Your task to perform on an android device: Go to battery settings Image 0: 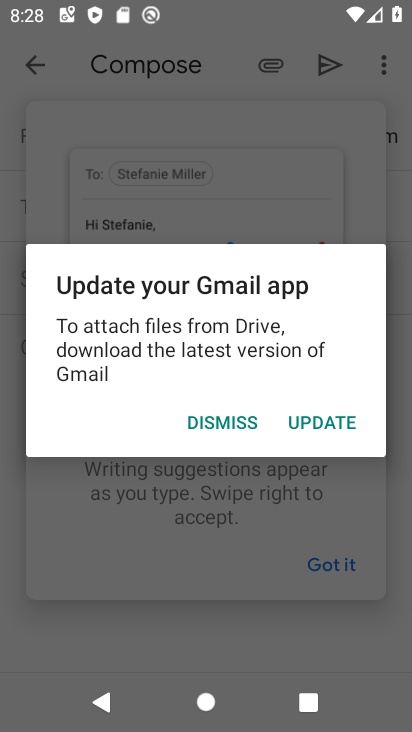
Step 0: press home button
Your task to perform on an android device: Go to battery settings Image 1: 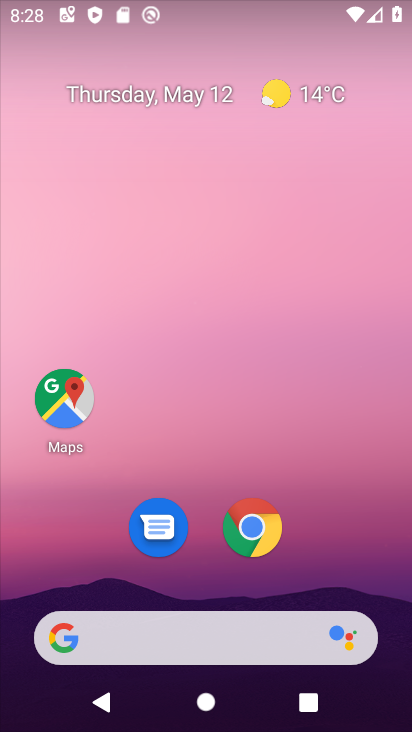
Step 1: drag from (324, 578) to (301, 228)
Your task to perform on an android device: Go to battery settings Image 2: 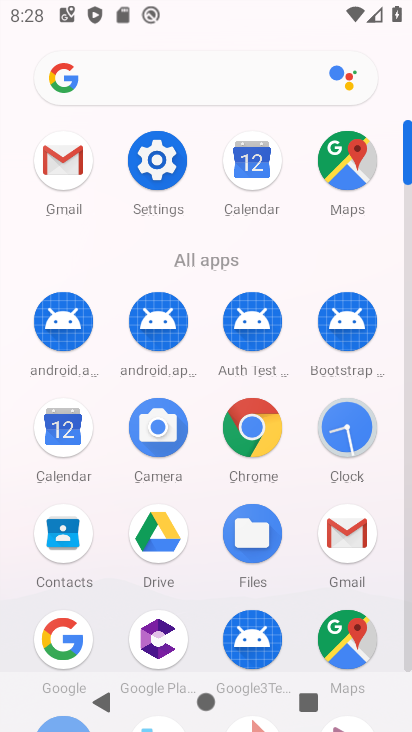
Step 2: click (164, 180)
Your task to perform on an android device: Go to battery settings Image 3: 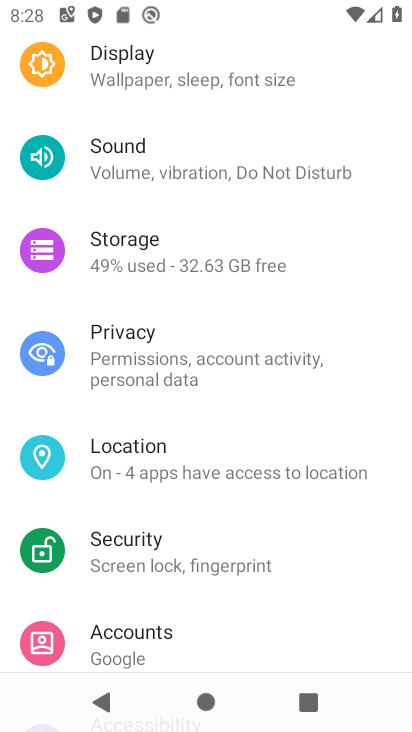
Step 3: drag from (227, 512) to (212, 196)
Your task to perform on an android device: Go to battery settings Image 4: 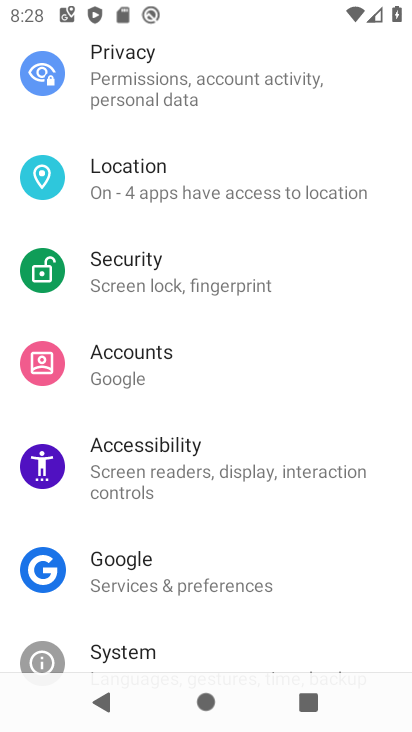
Step 4: drag from (235, 235) to (258, 578)
Your task to perform on an android device: Go to battery settings Image 5: 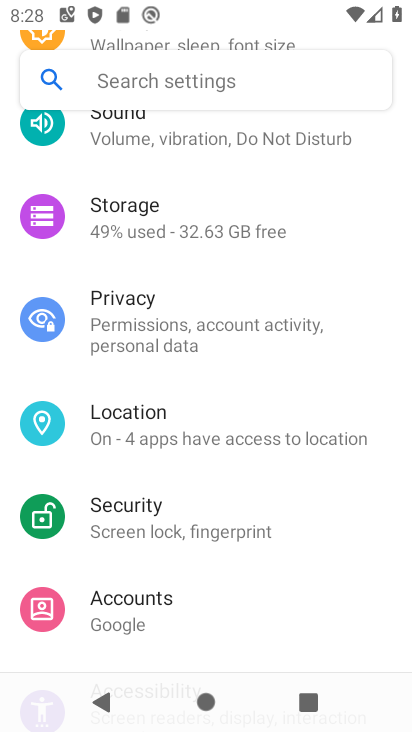
Step 5: drag from (252, 210) to (240, 416)
Your task to perform on an android device: Go to battery settings Image 6: 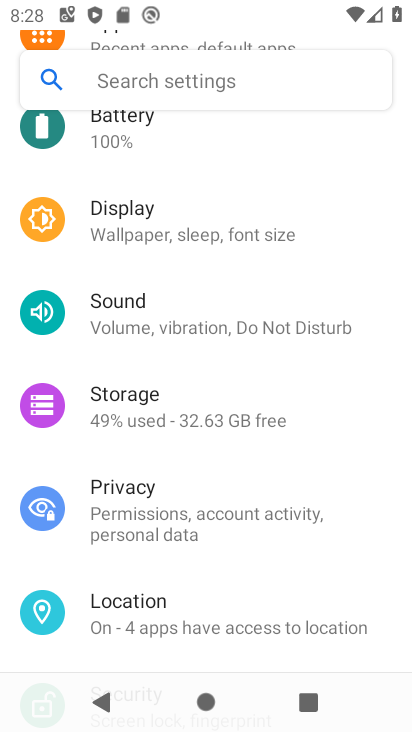
Step 6: click (157, 122)
Your task to perform on an android device: Go to battery settings Image 7: 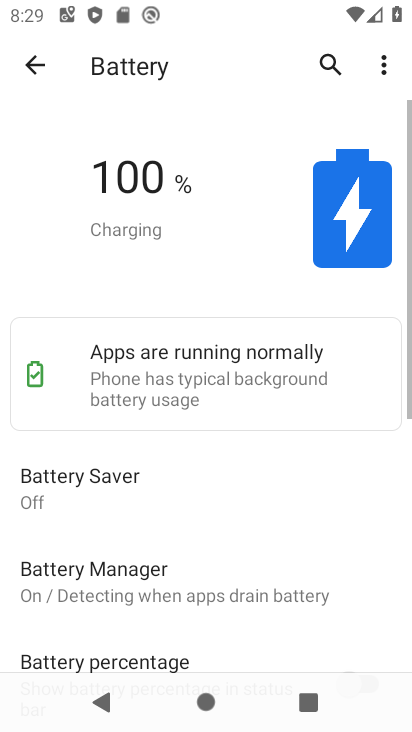
Step 7: task complete